Your task to perform on an android device: find photos in the google photos app Image 0: 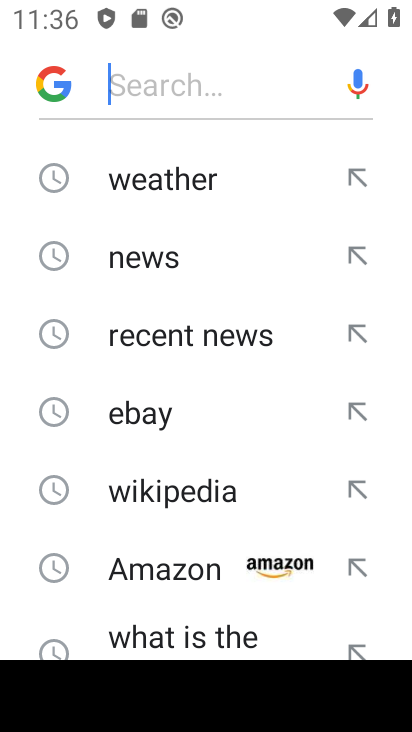
Step 0: press home button
Your task to perform on an android device: find photos in the google photos app Image 1: 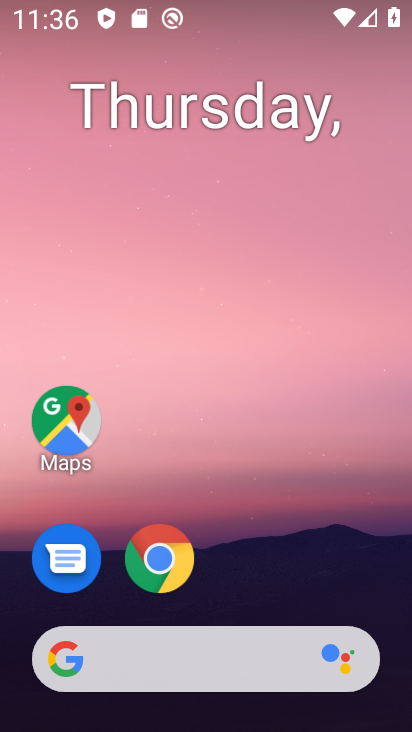
Step 1: drag from (352, 550) to (357, 165)
Your task to perform on an android device: find photos in the google photos app Image 2: 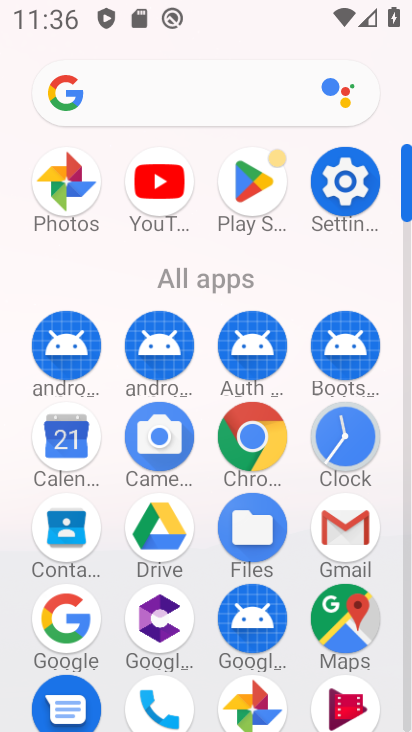
Step 2: click (276, 703)
Your task to perform on an android device: find photos in the google photos app Image 3: 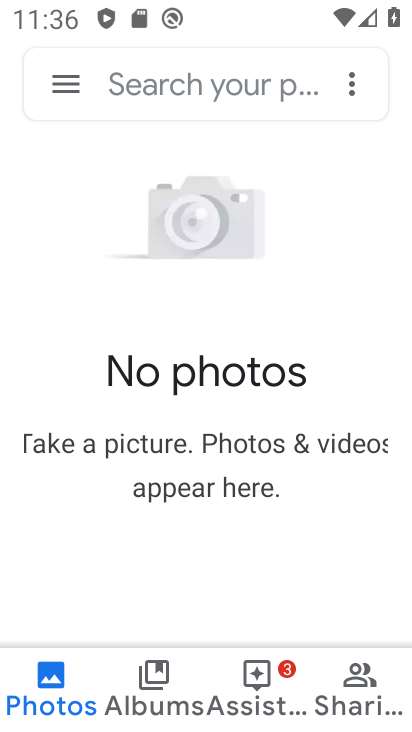
Step 3: task complete